Your task to perform on an android device: Go to sound settings Image 0: 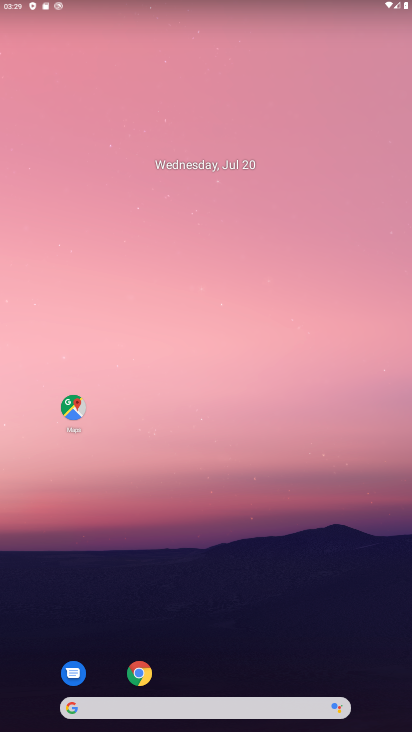
Step 0: drag from (243, 663) to (103, 196)
Your task to perform on an android device: Go to sound settings Image 1: 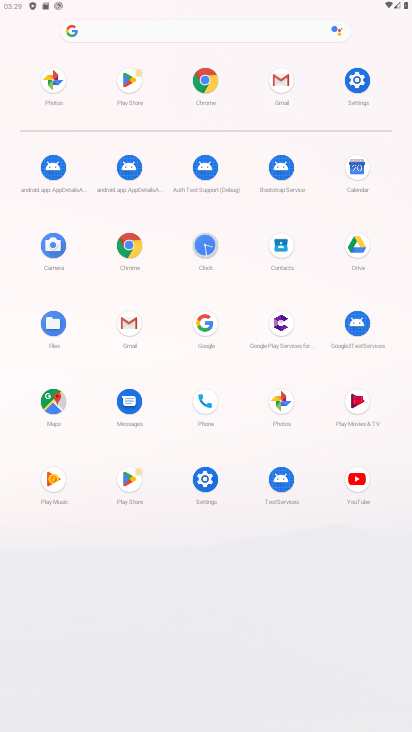
Step 1: click (350, 74)
Your task to perform on an android device: Go to sound settings Image 2: 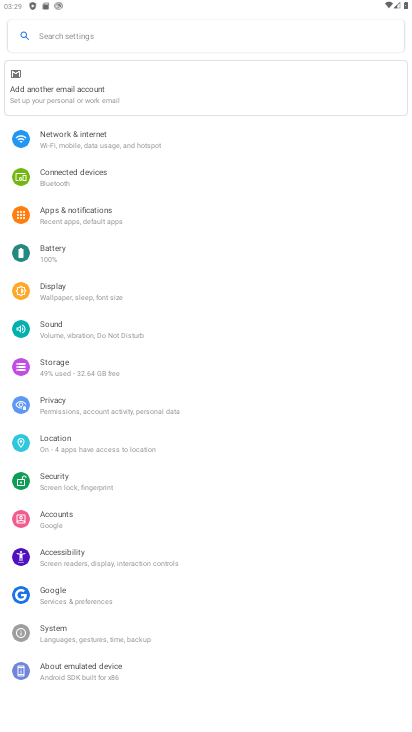
Step 2: click (68, 313)
Your task to perform on an android device: Go to sound settings Image 3: 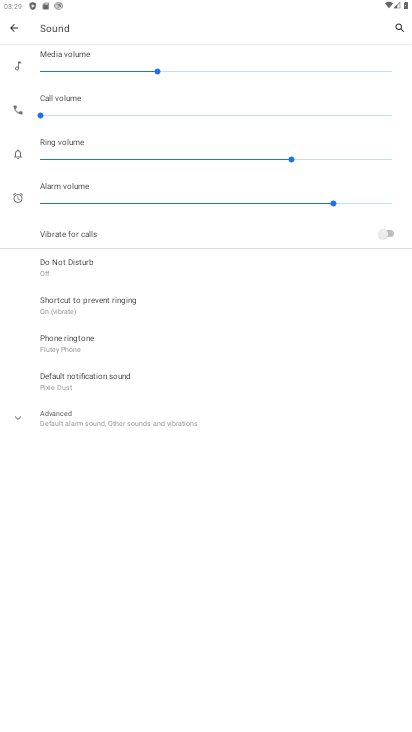
Step 3: task complete